Your task to perform on an android device: Do I have any events today? Image 0: 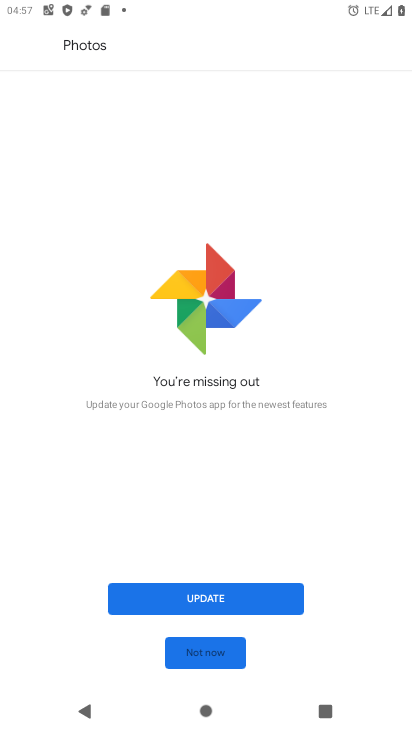
Step 0: press back button
Your task to perform on an android device: Do I have any events today? Image 1: 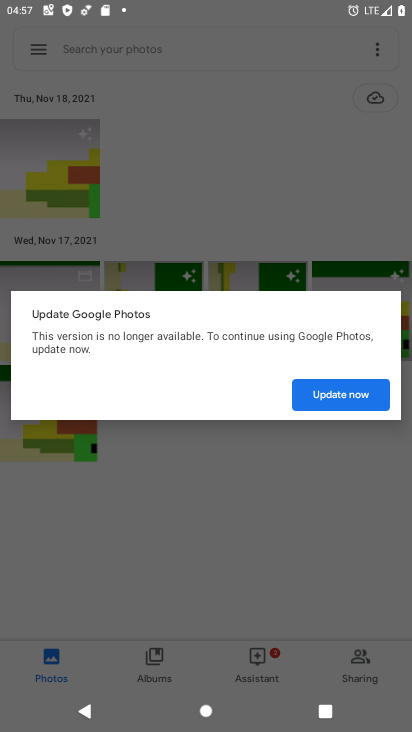
Step 1: press back button
Your task to perform on an android device: Do I have any events today? Image 2: 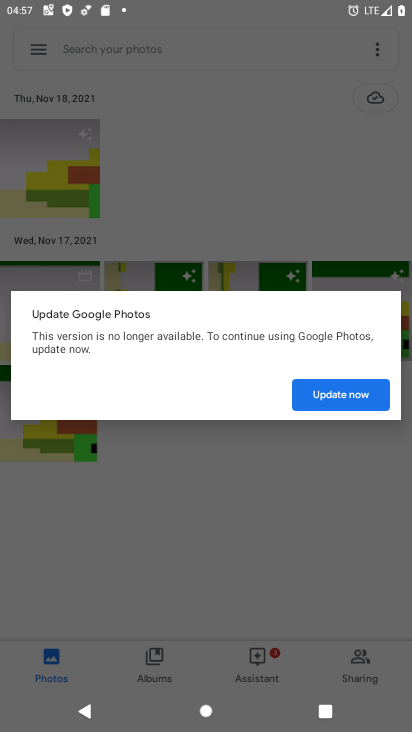
Step 2: press home button
Your task to perform on an android device: Do I have any events today? Image 3: 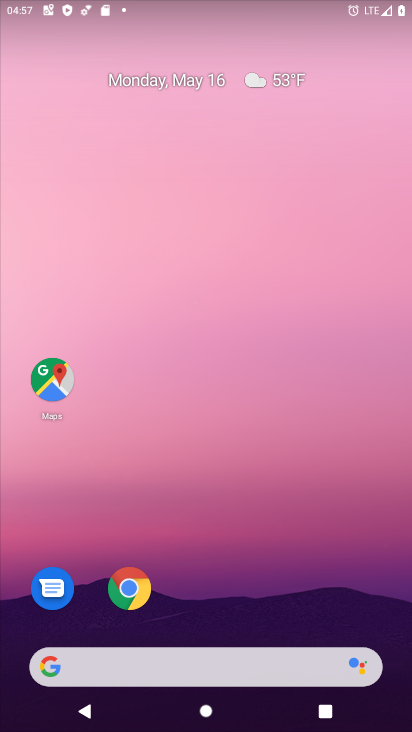
Step 3: drag from (249, 500) to (229, 40)
Your task to perform on an android device: Do I have any events today? Image 4: 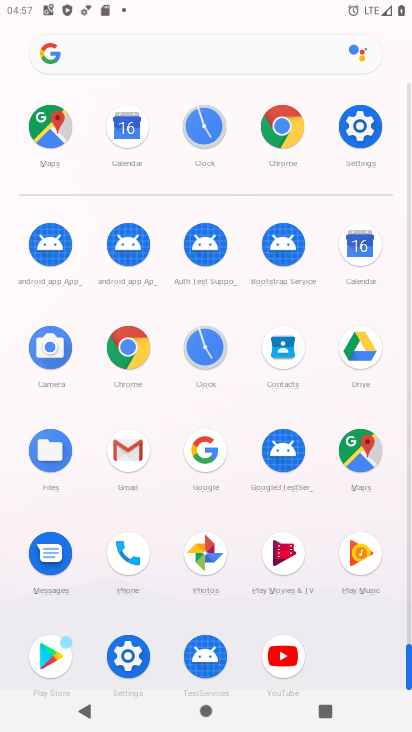
Step 4: drag from (12, 496) to (18, 247)
Your task to perform on an android device: Do I have any events today? Image 5: 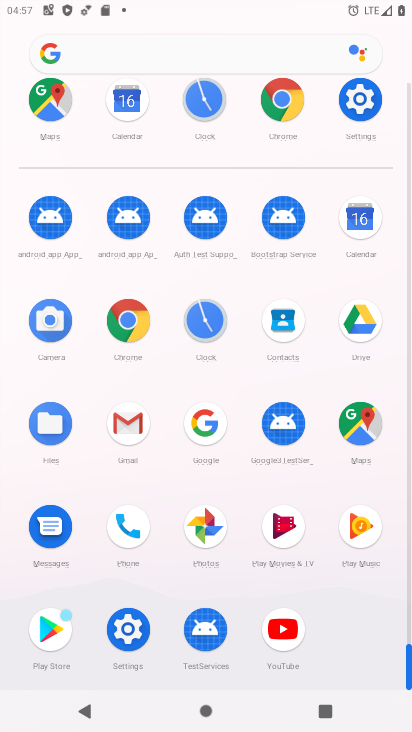
Step 5: click (357, 214)
Your task to perform on an android device: Do I have any events today? Image 6: 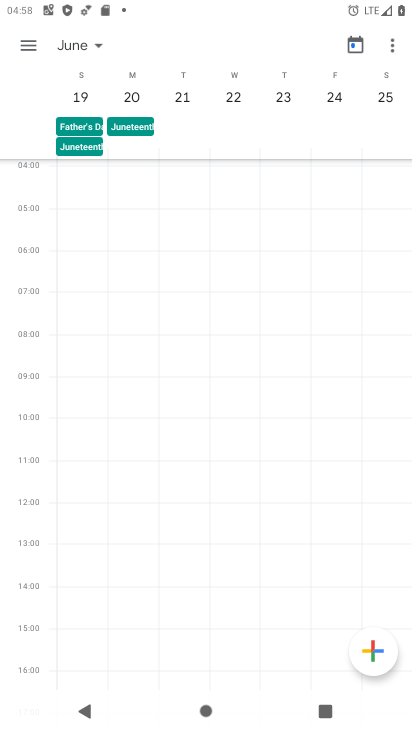
Step 6: click (348, 41)
Your task to perform on an android device: Do I have any events today? Image 7: 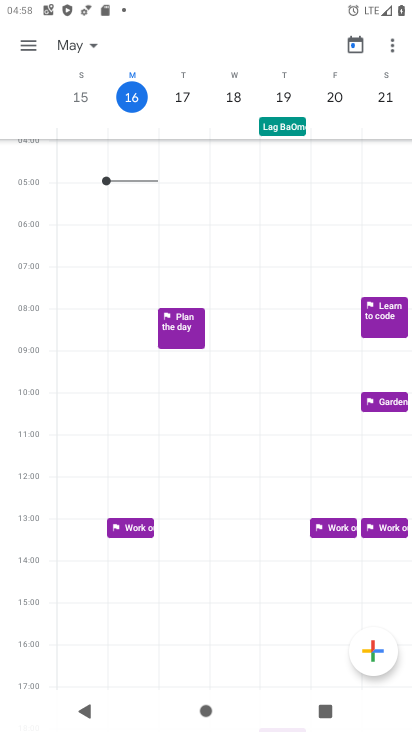
Step 7: task complete